Your task to perform on an android device: Open Google Image 0: 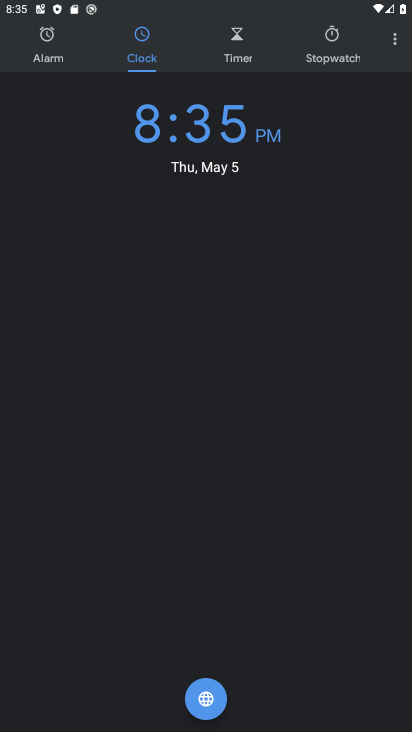
Step 0: press home button
Your task to perform on an android device: Open Google Image 1: 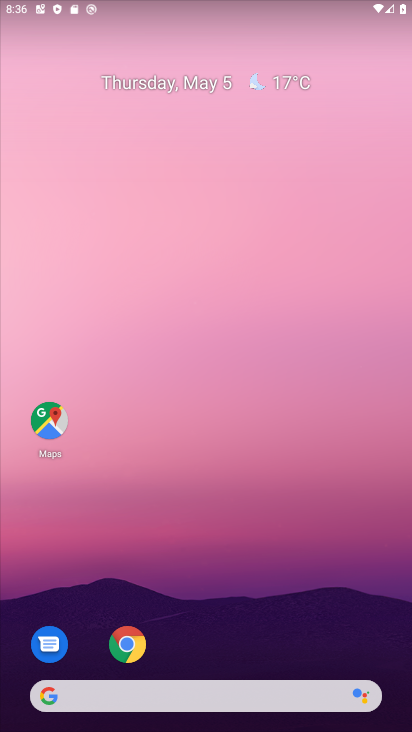
Step 1: drag from (213, 633) to (217, 205)
Your task to perform on an android device: Open Google Image 2: 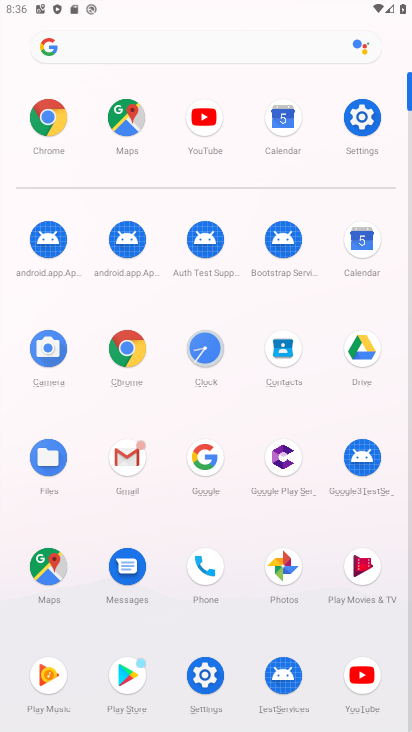
Step 2: click (200, 461)
Your task to perform on an android device: Open Google Image 3: 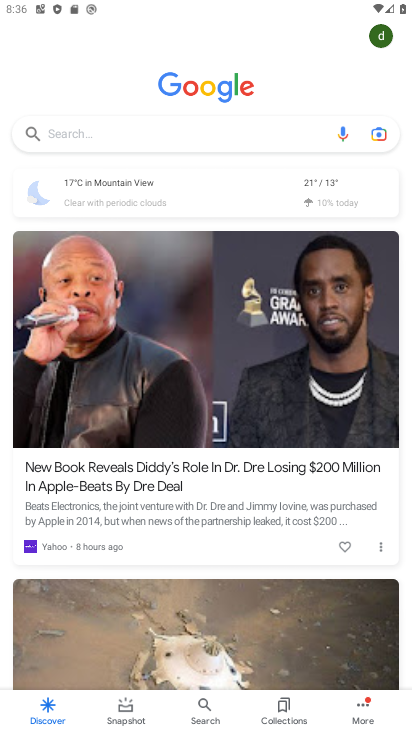
Step 3: task complete